Your task to perform on an android device: show emergency info Image 0: 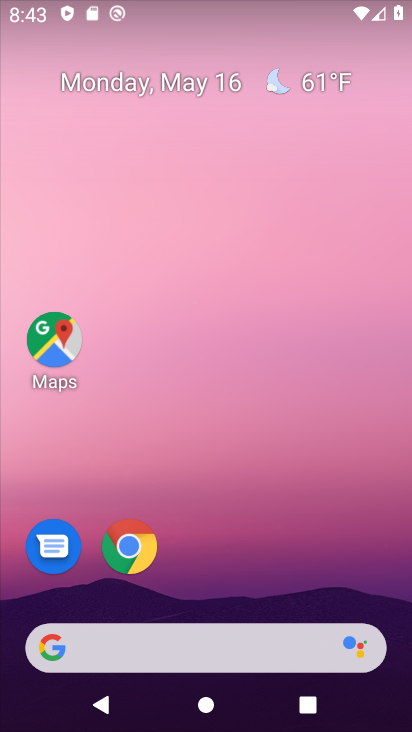
Step 0: drag from (267, 591) to (208, 129)
Your task to perform on an android device: show emergency info Image 1: 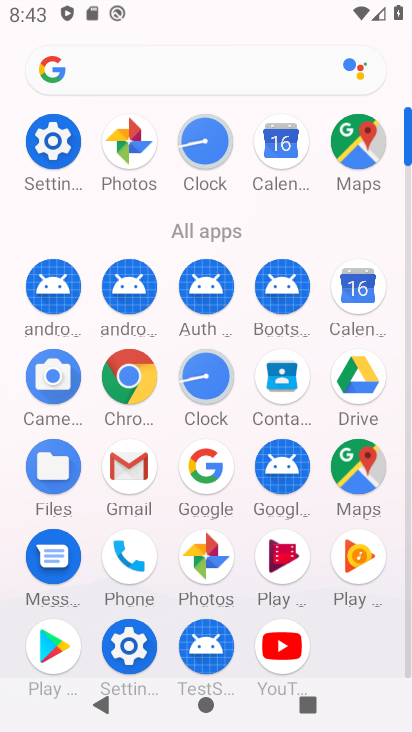
Step 1: click (68, 147)
Your task to perform on an android device: show emergency info Image 2: 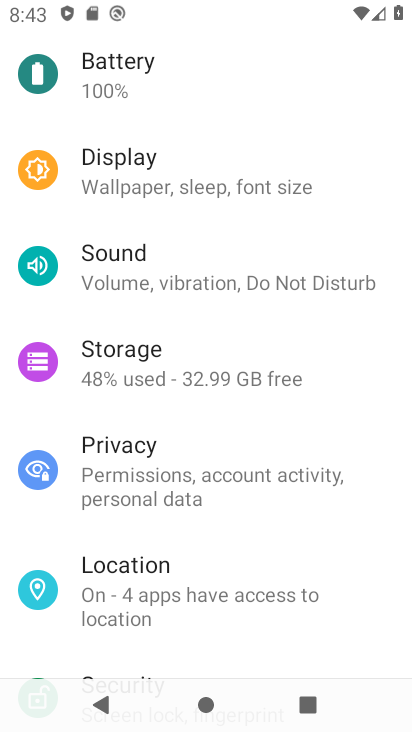
Step 2: drag from (284, 491) to (261, 55)
Your task to perform on an android device: show emergency info Image 3: 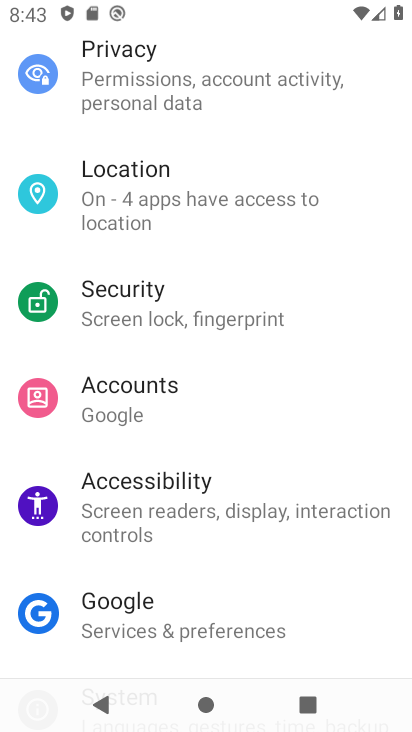
Step 3: drag from (232, 574) to (229, 69)
Your task to perform on an android device: show emergency info Image 4: 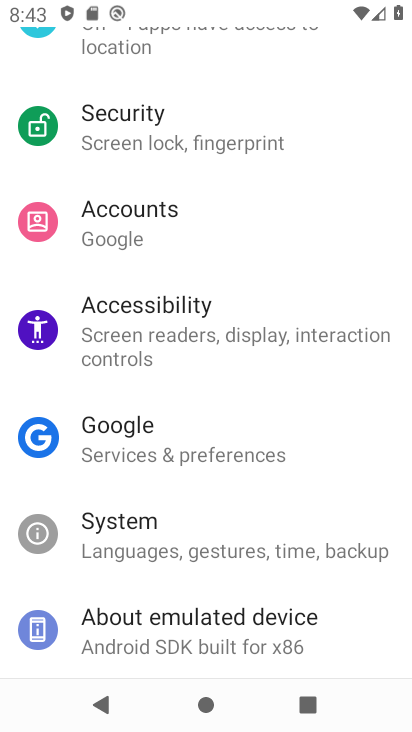
Step 4: click (154, 622)
Your task to perform on an android device: show emergency info Image 5: 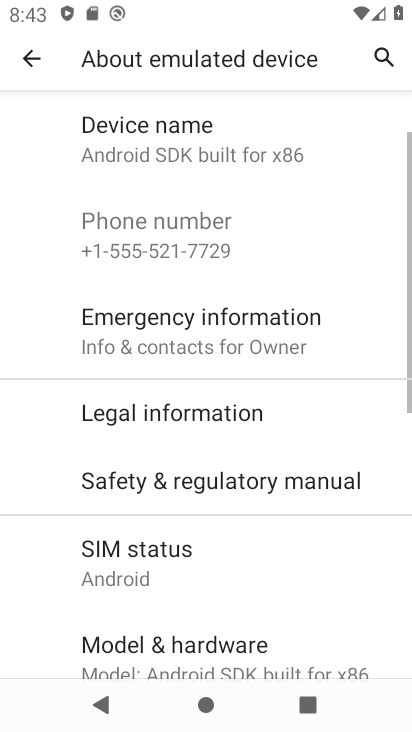
Step 5: click (216, 314)
Your task to perform on an android device: show emergency info Image 6: 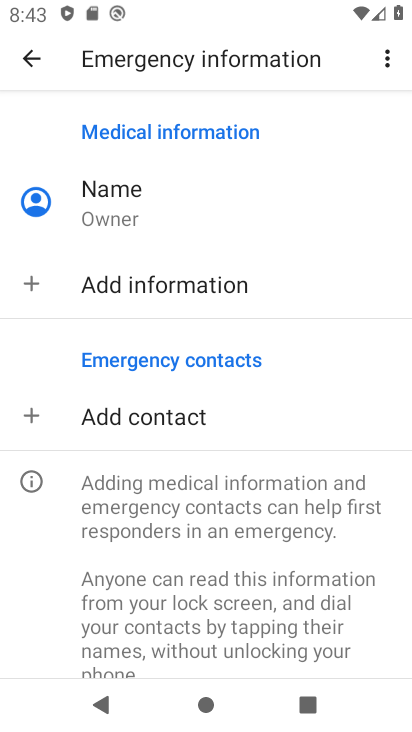
Step 6: task complete